Your task to perform on an android device: See recent photos Image 0: 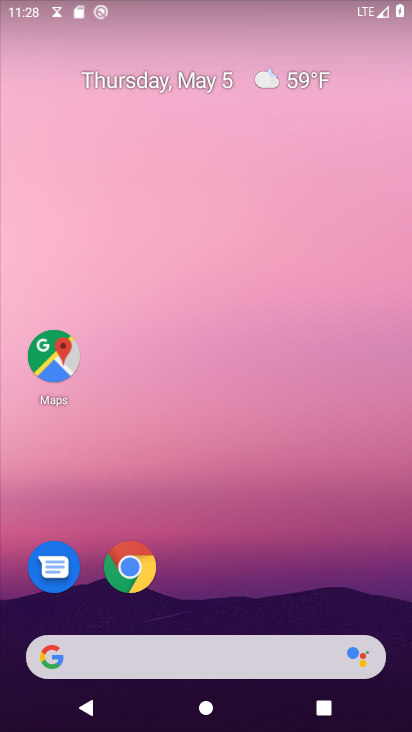
Step 0: drag from (311, 618) to (332, 12)
Your task to perform on an android device: See recent photos Image 1: 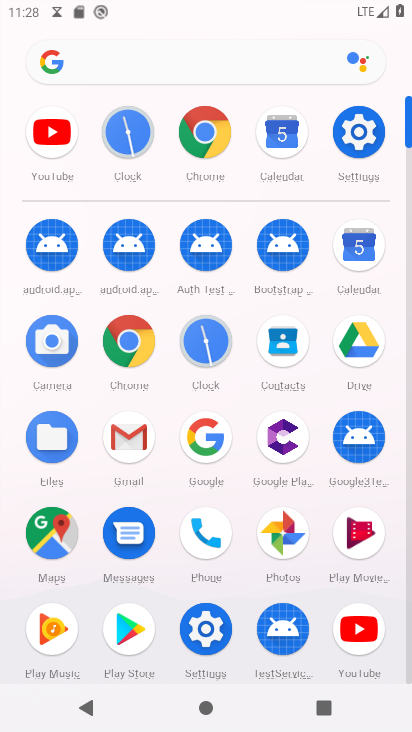
Step 1: click (284, 542)
Your task to perform on an android device: See recent photos Image 2: 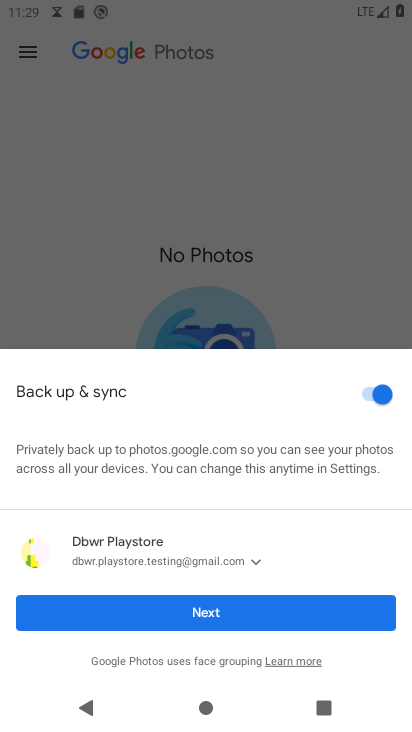
Step 2: click (189, 617)
Your task to perform on an android device: See recent photos Image 3: 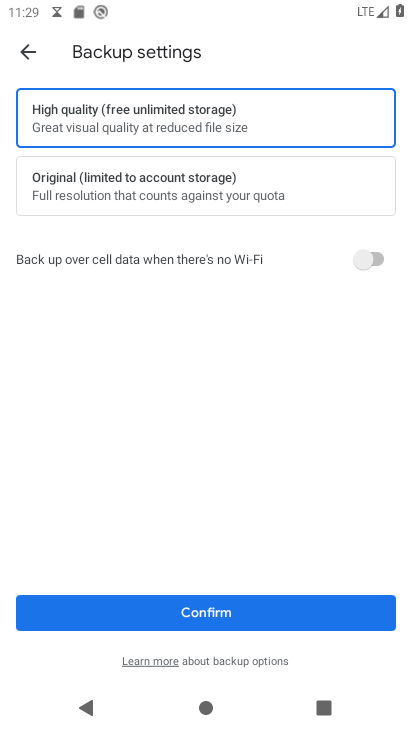
Step 3: click (28, 58)
Your task to perform on an android device: See recent photos Image 4: 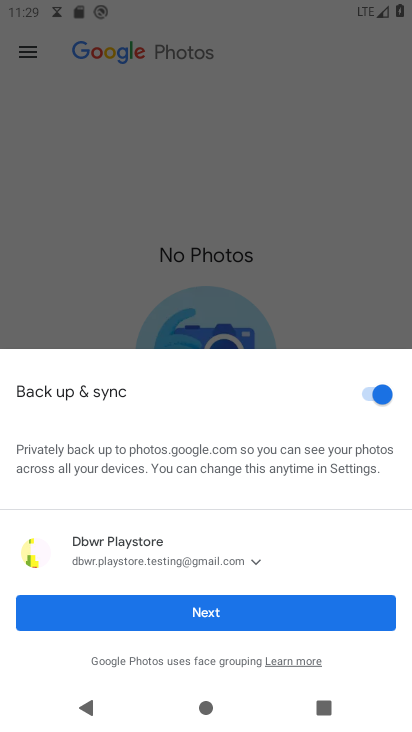
Step 4: click (28, 58)
Your task to perform on an android device: See recent photos Image 5: 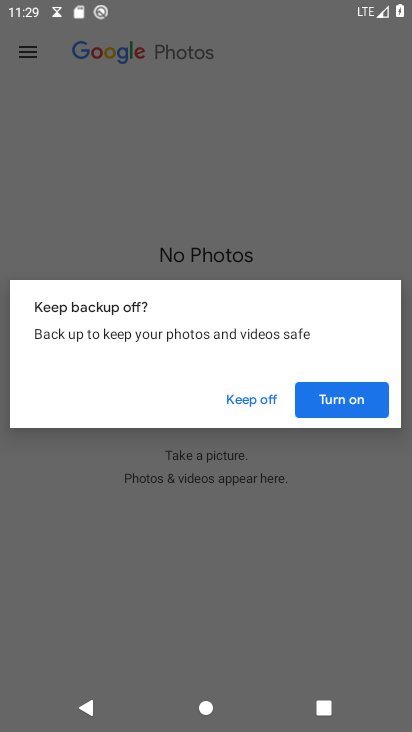
Step 5: click (346, 396)
Your task to perform on an android device: See recent photos Image 6: 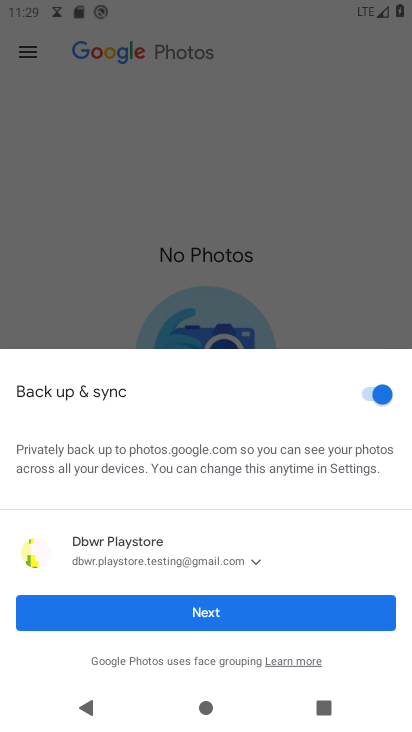
Step 6: click (202, 614)
Your task to perform on an android device: See recent photos Image 7: 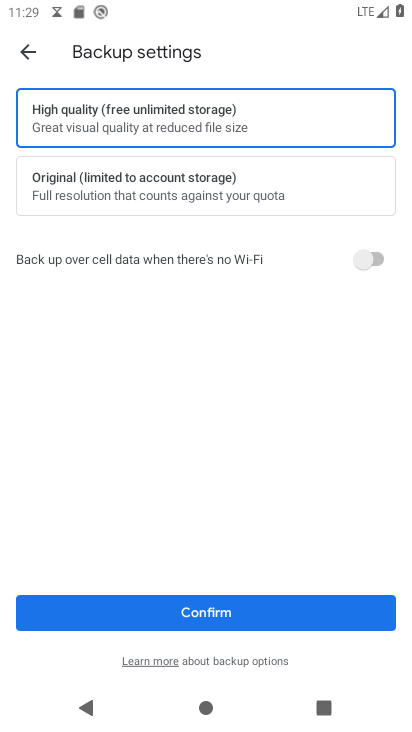
Step 7: click (208, 610)
Your task to perform on an android device: See recent photos Image 8: 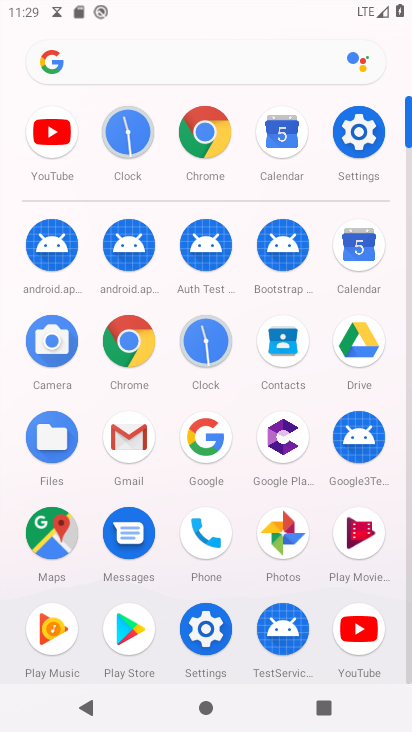
Step 8: click (282, 532)
Your task to perform on an android device: See recent photos Image 9: 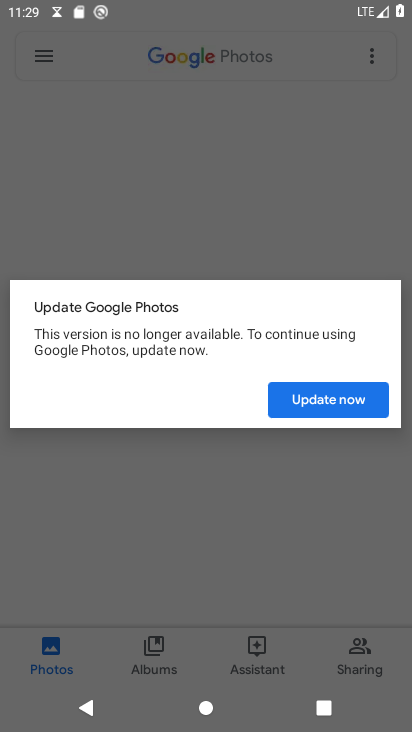
Step 9: click (313, 410)
Your task to perform on an android device: See recent photos Image 10: 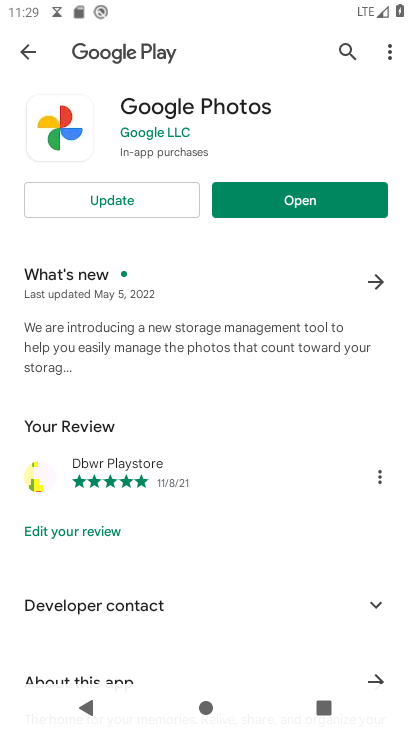
Step 10: click (253, 200)
Your task to perform on an android device: See recent photos Image 11: 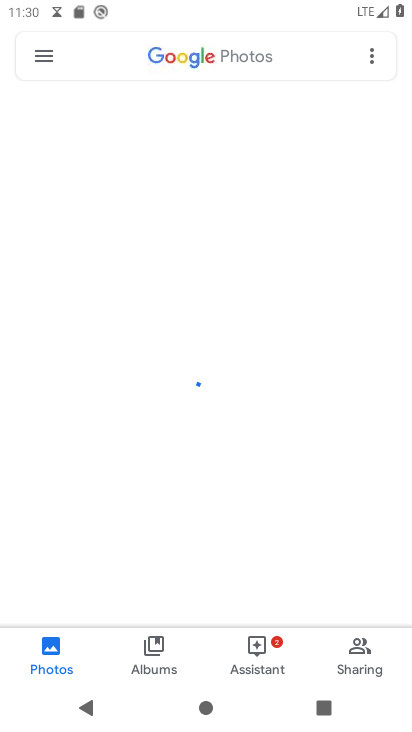
Step 11: task complete